Your task to perform on an android device: check storage Image 0: 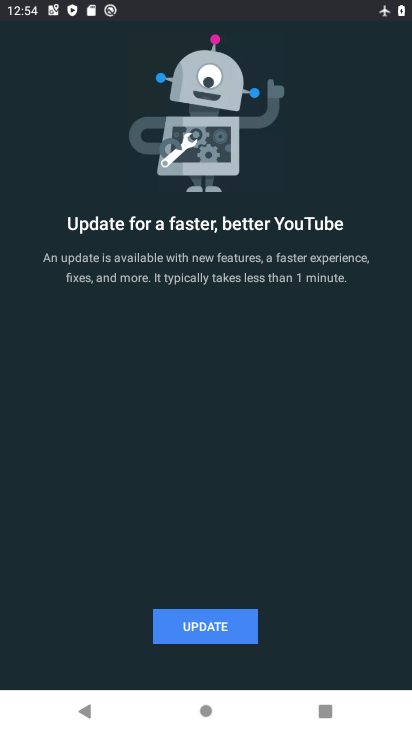
Step 0: press home button
Your task to perform on an android device: check storage Image 1: 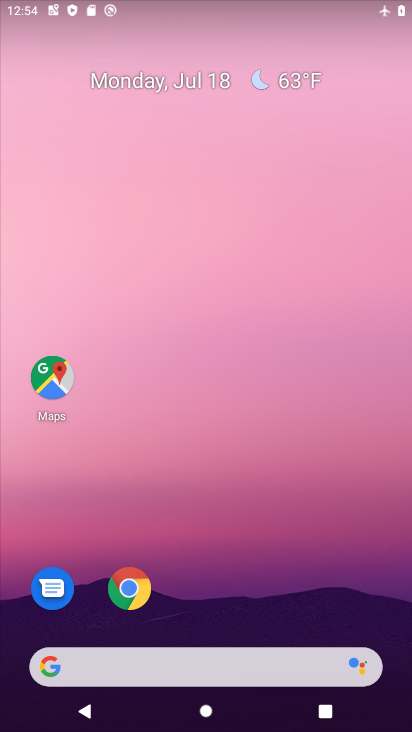
Step 1: drag from (236, 721) to (225, 87)
Your task to perform on an android device: check storage Image 2: 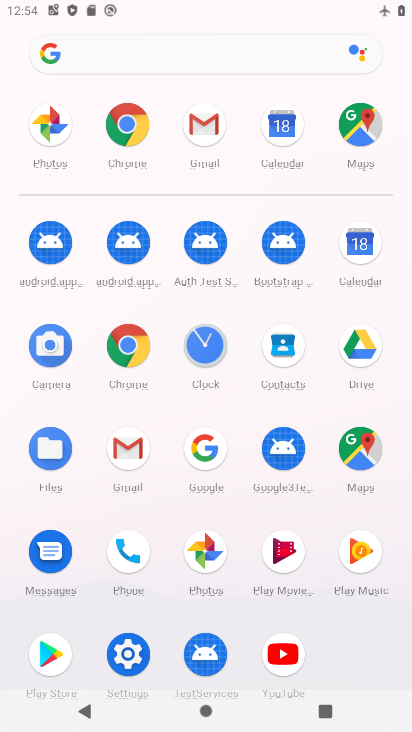
Step 2: click (124, 660)
Your task to perform on an android device: check storage Image 3: 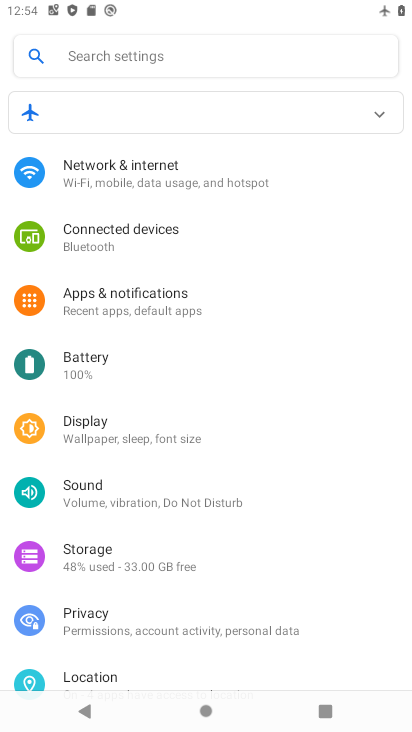
Step 3: click (95, 559)
Your task to perform on an android device: check storage Image 4: 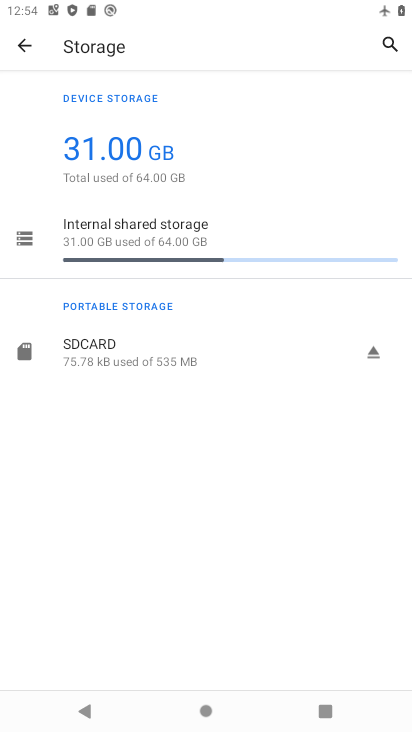
Step 4: task complete